Your task to perform on an android device: turn pop-ups off in chrome Image 0: 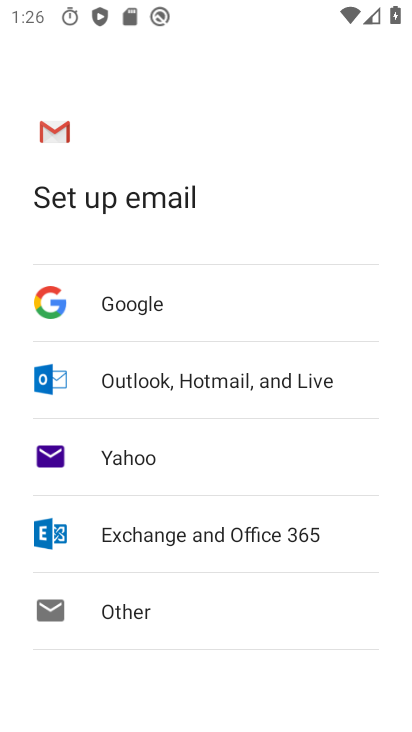
Step 0: press home button
Your task to perform on an android device: turn pop-ups off in chrome Image 1: 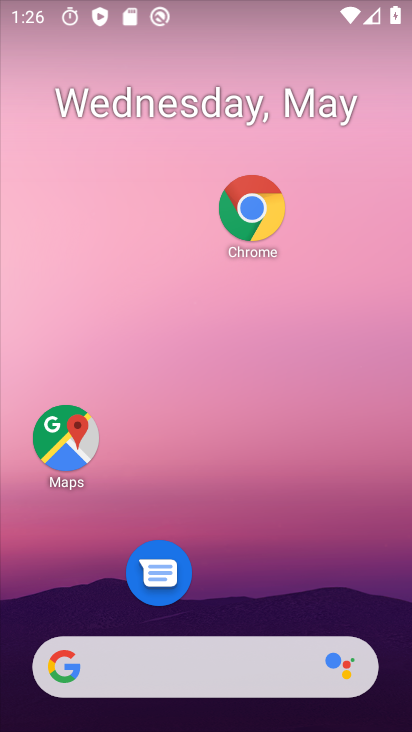
Step 1: click (248, 214)
Your task to perform on an android device: turn pop-ups off in chrome Image 2: 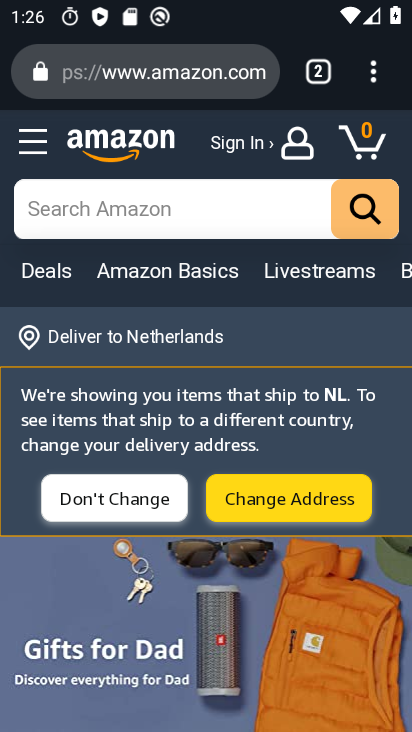
Step 2: click (387, 68)
Your task to perform on an android device: turn pop-ups off in chrome Image 3: 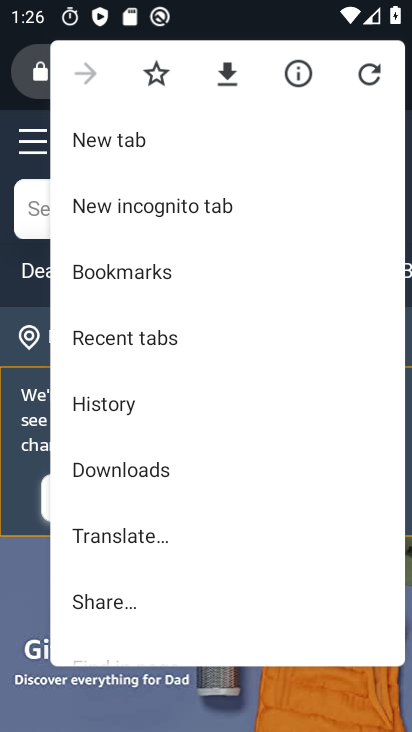
Step 3: drag from (129, 578) to (181, 248)
Your task to perform on an android device: turn pop-ups off in chrome Image 4: 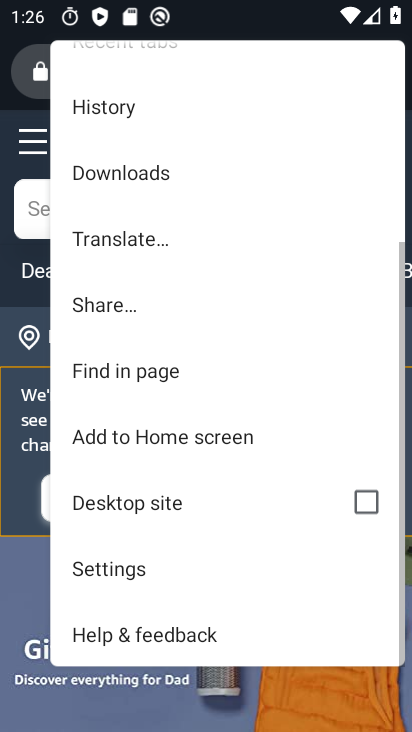
Step 4: click (128, 586)
Your task to perform on an android device: turn pop-ups off in chrome Image 5: 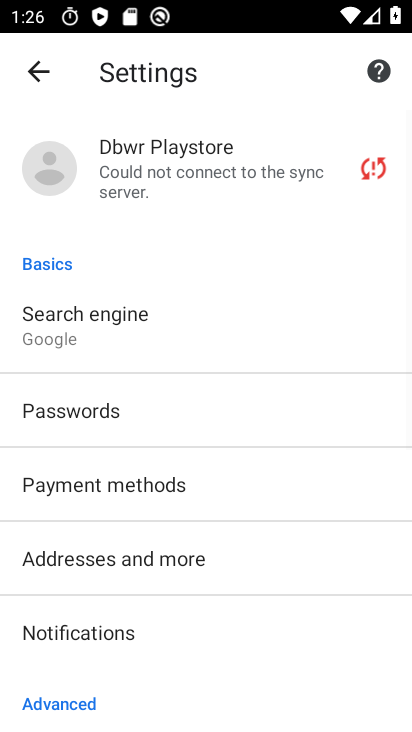
Step 5: drag from (128, 586) to (213, 318)
Your task to perform on an android device: turn pop-ups off in chrome Image 6: 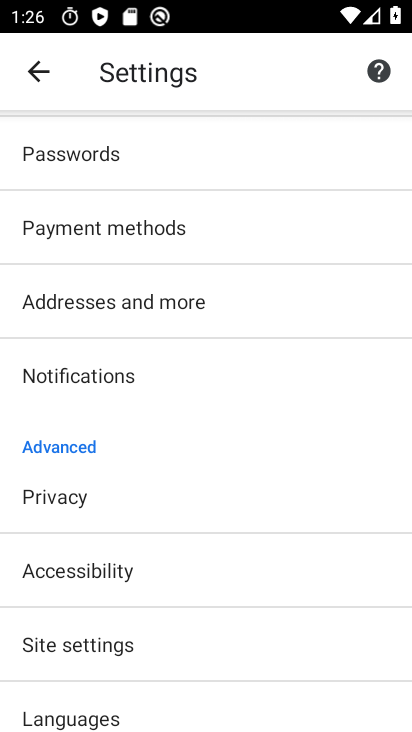
Step 6: click (115, 667)
Your task to perform on an android device: turn pop-ups off in chrome Image 7: 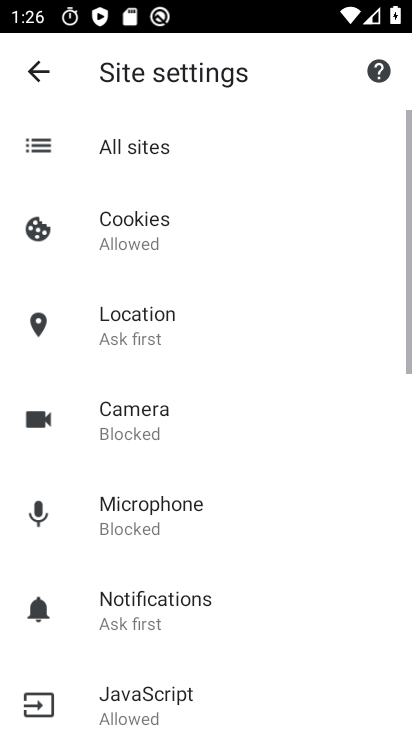
Step 7: drag from (115, 667) to (269, 241)
Your task to perform on an android device: turn pop-ups off in chrome Image 8: 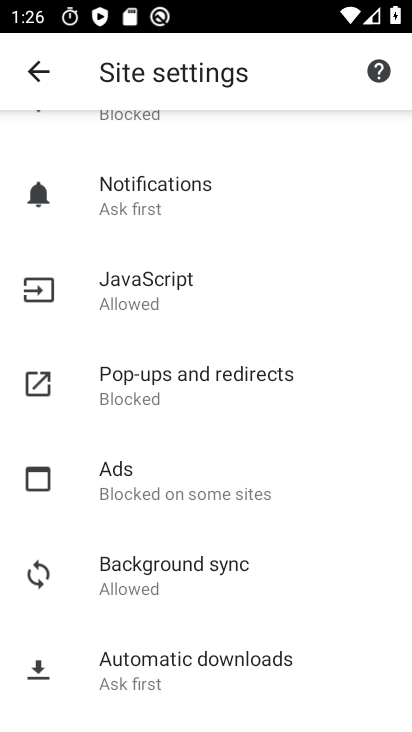
Step 8: click (126, 390)
Your task to perform on an android device: turn pop-ups off in chrome Image 9: 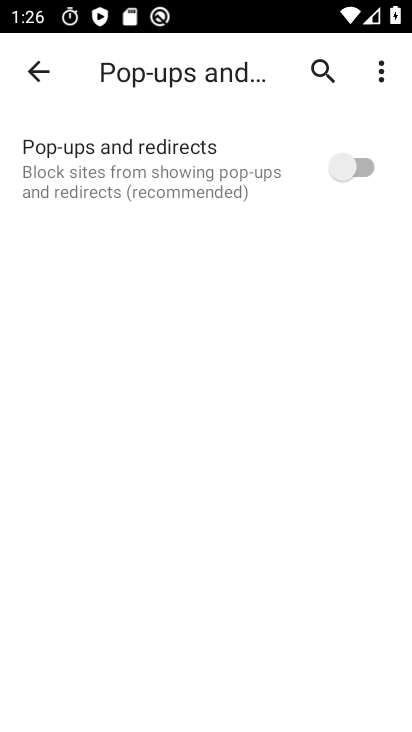
Step 9: task complete